Your task to perform on an android device: Go to sound settings Image 0: 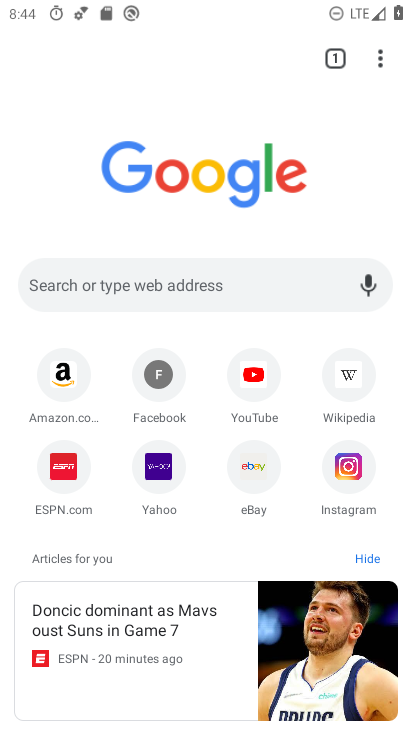
Step 0: press back button
Your task to perform on an android device: Go to sound settings Image 1: 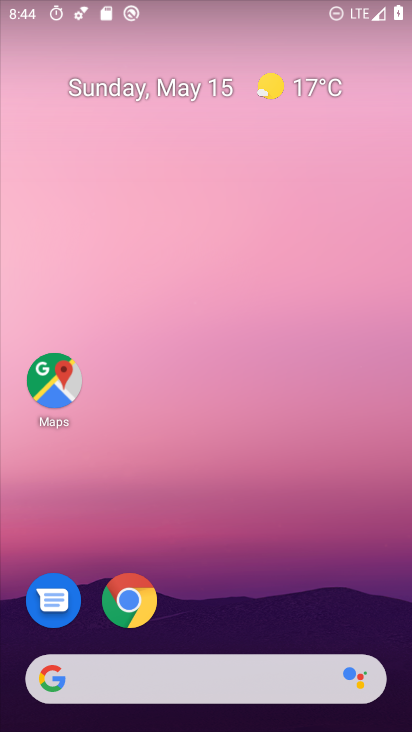
Step 1: drag from (229, 601) to (119, 87)
Your task to perform on an android device: Go to sound settings Image 2: 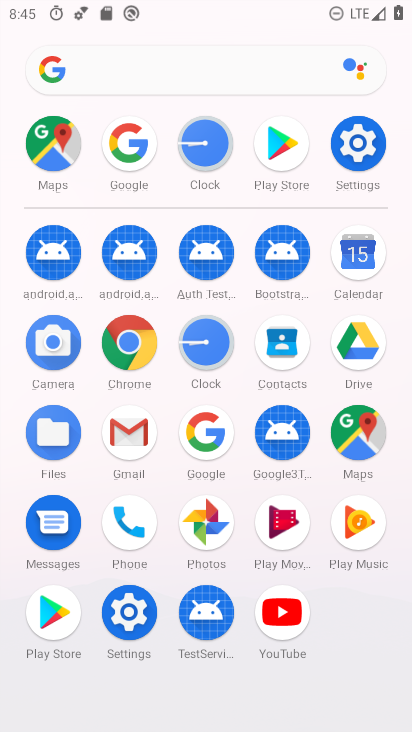
Step 2: click (360, 141)
Your task to perform on an android device: Go to sound settings Image 3: 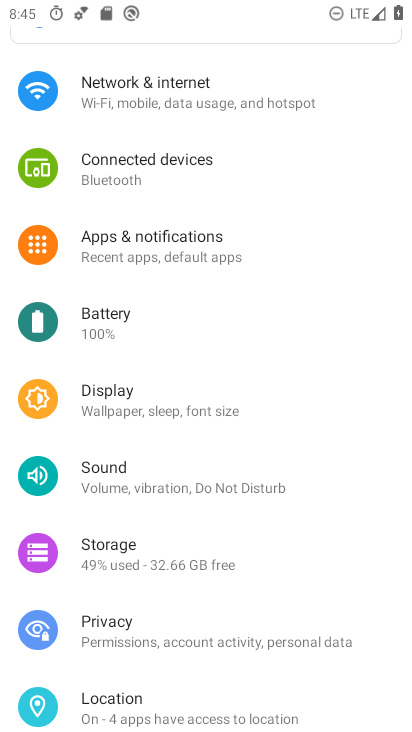
Step 3: click (119, 489)
Your task to perform on an android device: Go to sound settings Image 4: 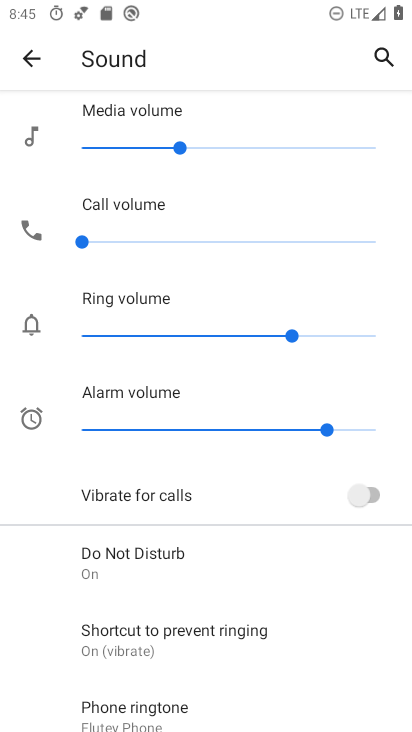
Step 4: task complete